Your task to perform on an android device: Open the map Image 0: 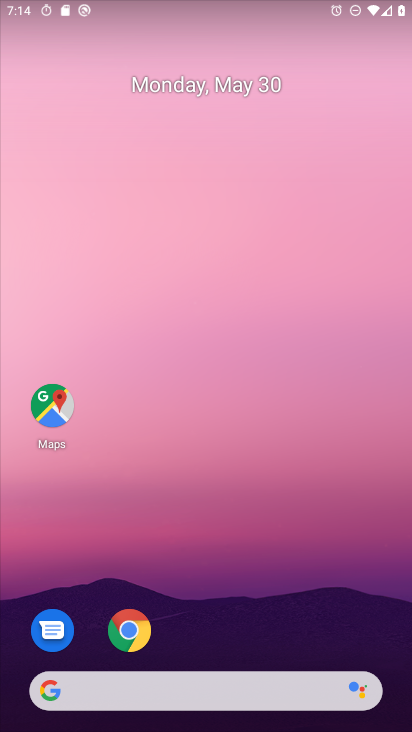
Step 0: drag from (331, 603) to (314, 27)
Your task to perform on an android device: Open the map Image 1: 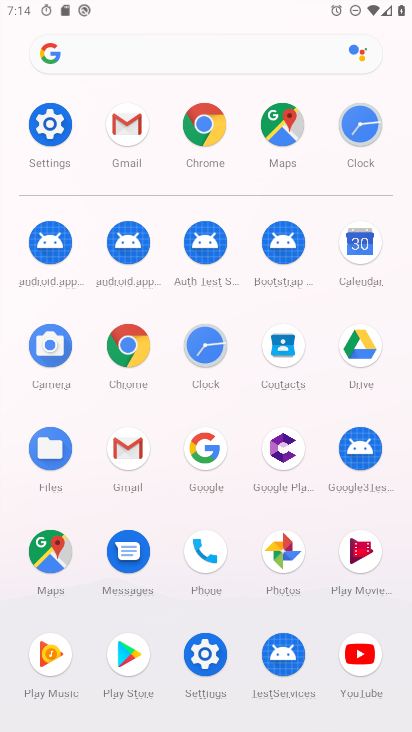
Step 1: click (60, 544)
Your task to perform on an android device: Open the map Image 2: 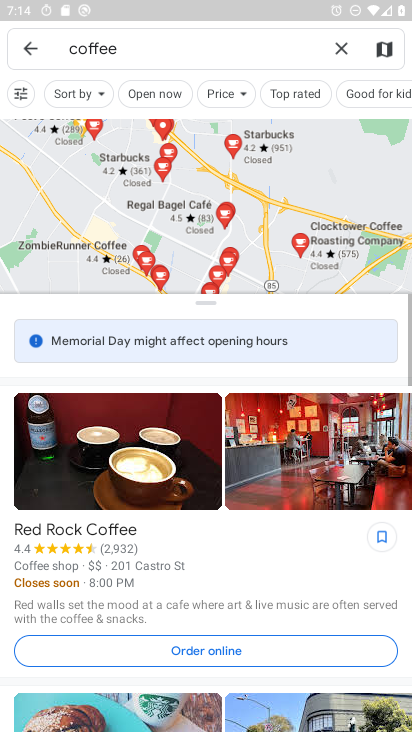
Step 2: task complete